Your task to perform on an android device: Do I have any events tomorrow? Image 0: 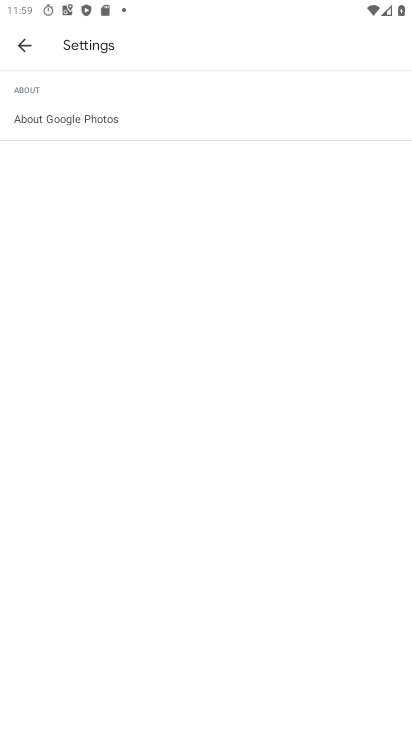
Step 0: press home button
Your task to perform on an android device: Do I have any events tomorrow? Image 1: 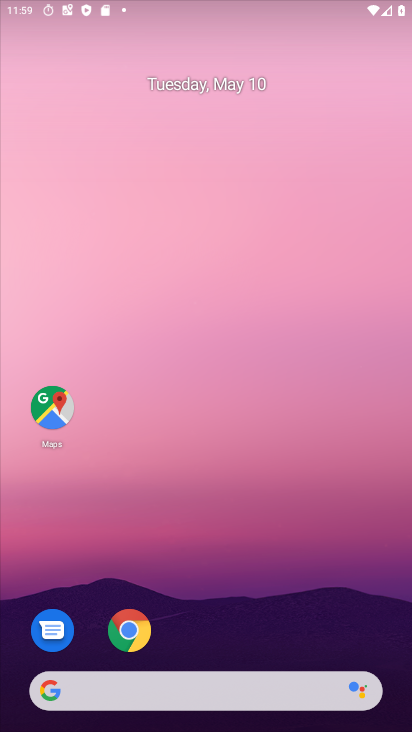
Step 1: drag from (285, 610) to (243, 159)
Your task to perform on an android device: Do I have any events tomorrow? Image 2: 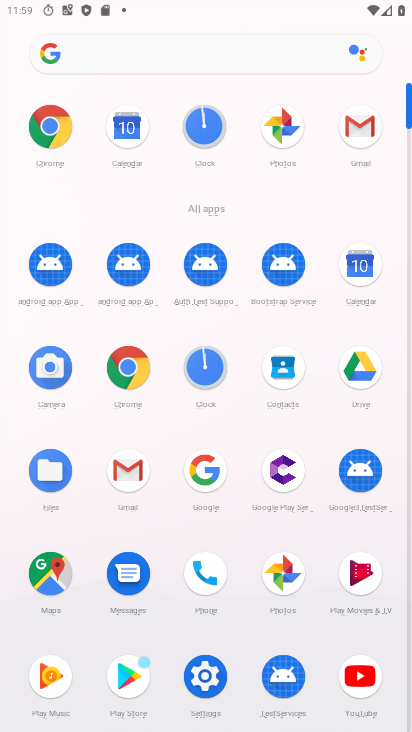
Step 2: click (133, 124)
Your task to perform on an android device: Do I have any events tomorrow? Image 3: 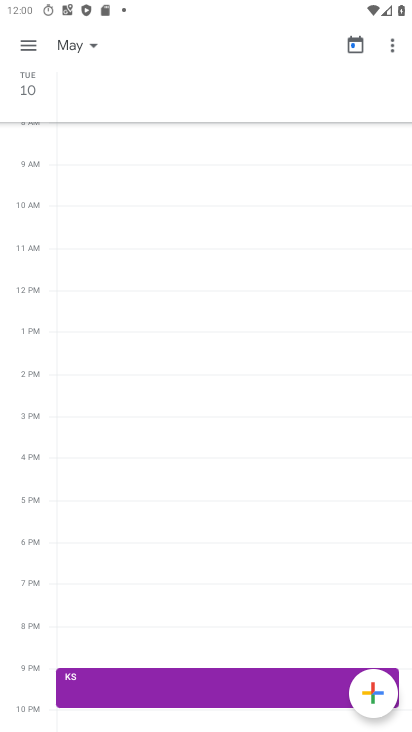
Step 3: click (81, 50)
Your task to perform on an android device: Do I have any events tomorrow? Image 4: 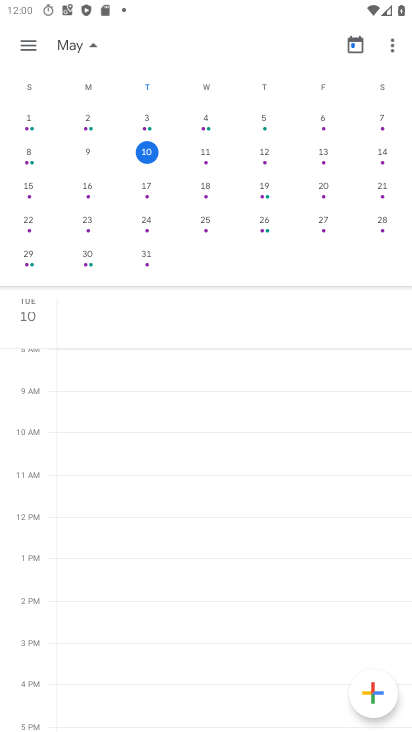
Step 4: click (263, 152)
Your task to perform on an android device: Do I have any events tomorrow? Image 5: 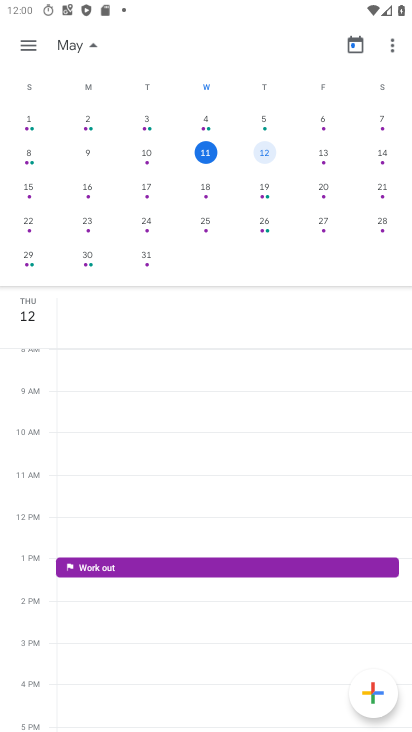
Step 5: click (148, 153)
Your task to perform on an android device: Do I have any events tomorrow? Image 6: 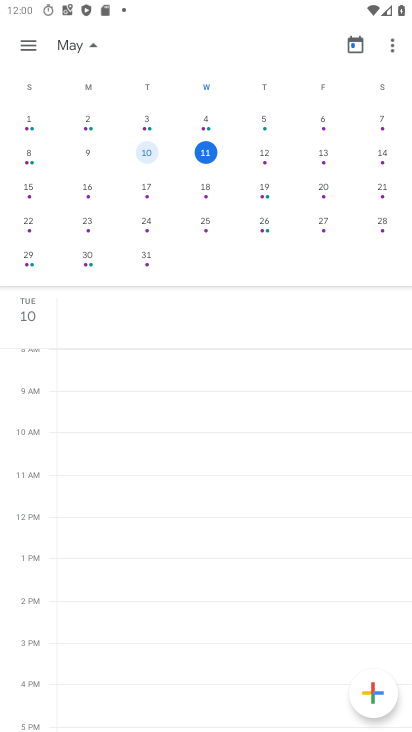
Step 6: click (271, 151)
Your task to perform on an android device: Do I have any events tomorrow? Image 7: 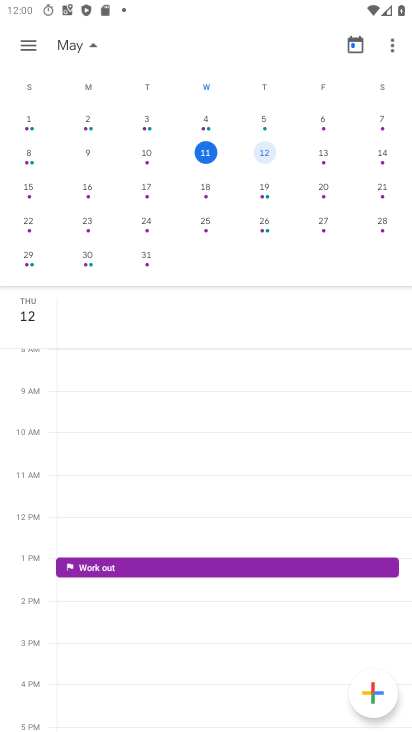
Step 7: task complete